Your task to perform on an android device: open app "Viber Messenger" (install if not already installed) and go to login screen Image 0: 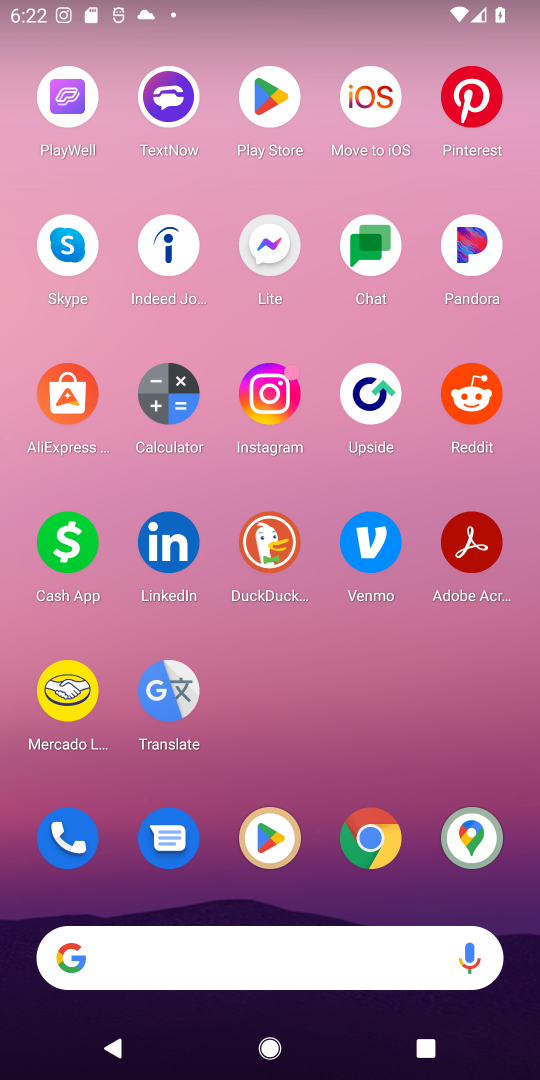
Step 0: click (271, 836)
Your task to perform on an android device: open app "Viber Messenger" (install if not already installed) and go to login screen Image 1: 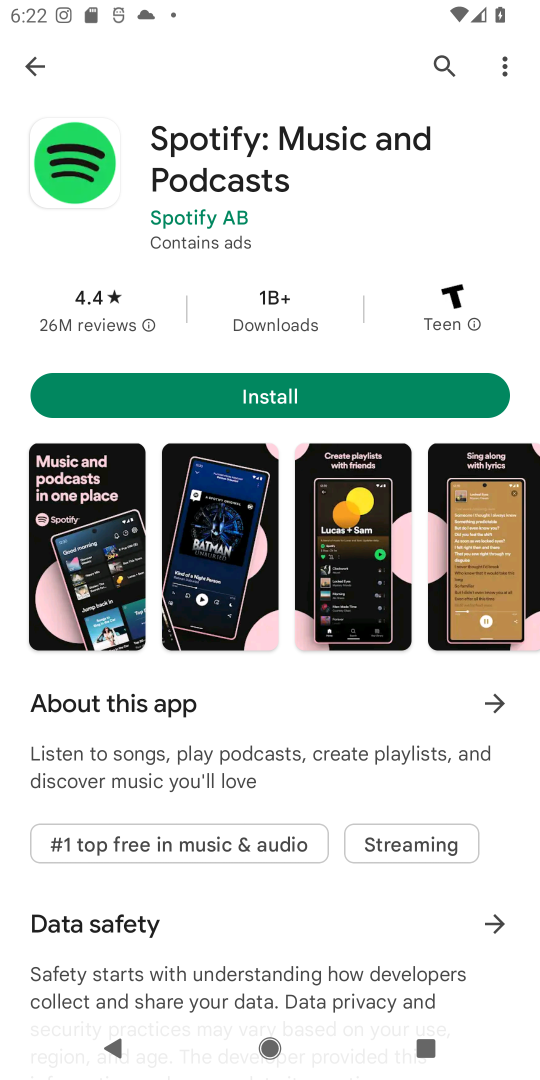
Step 1: click (445, 59)
Your task to perform on an android device: open app "Viber Messenger" (install if not already installed) and go to login screen Image 2: 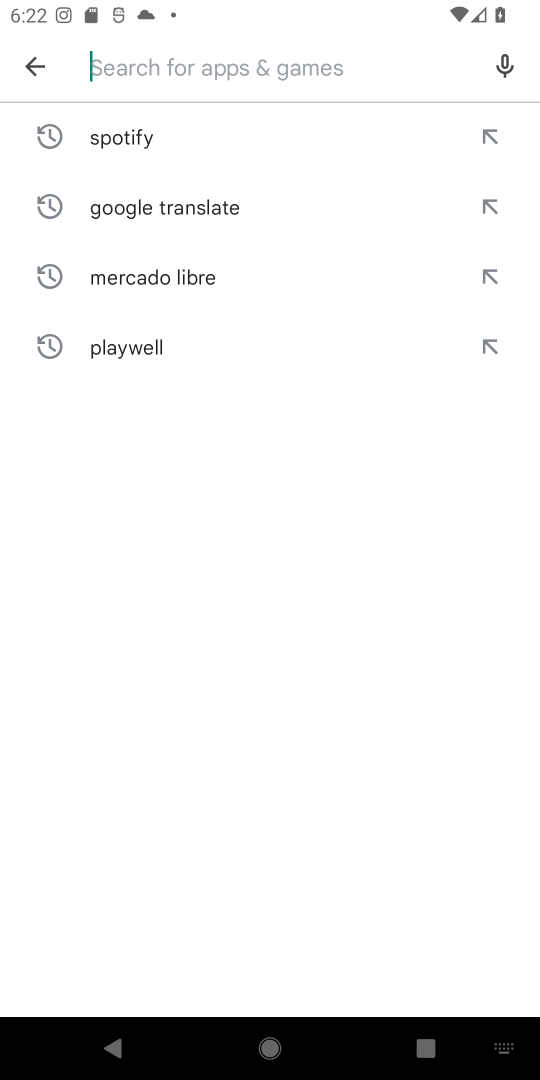
Step 2: type "Viber Messenger"
Your task to perform on an android device: open app "Viber Messenger" (install if not already installed) and go to login screen Image 3: 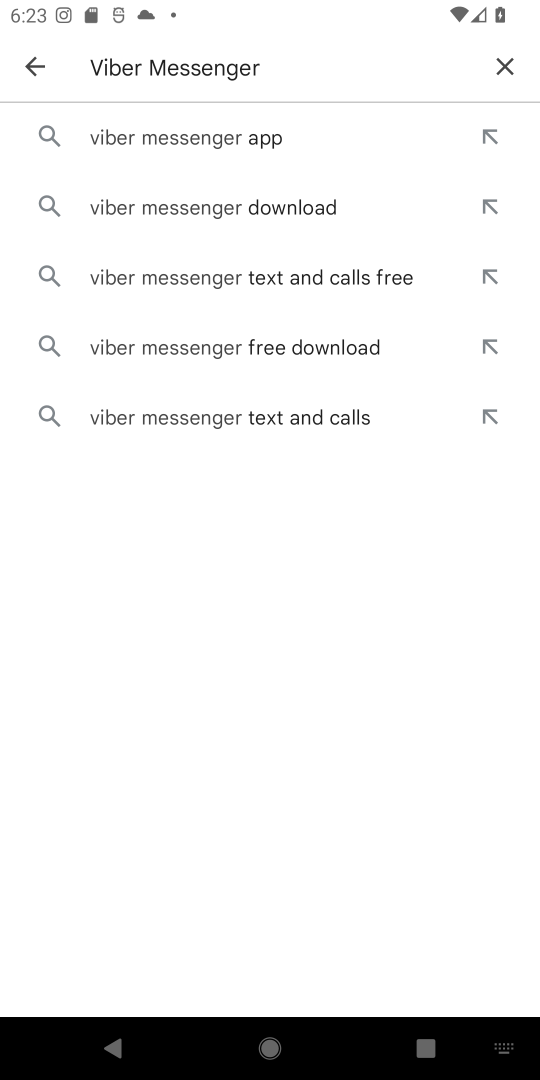
Step 3: click (195, 144)
Your task to perform on an android device: open app "Viber Messenger" (install if not already installed) and go to login screen Image 4: 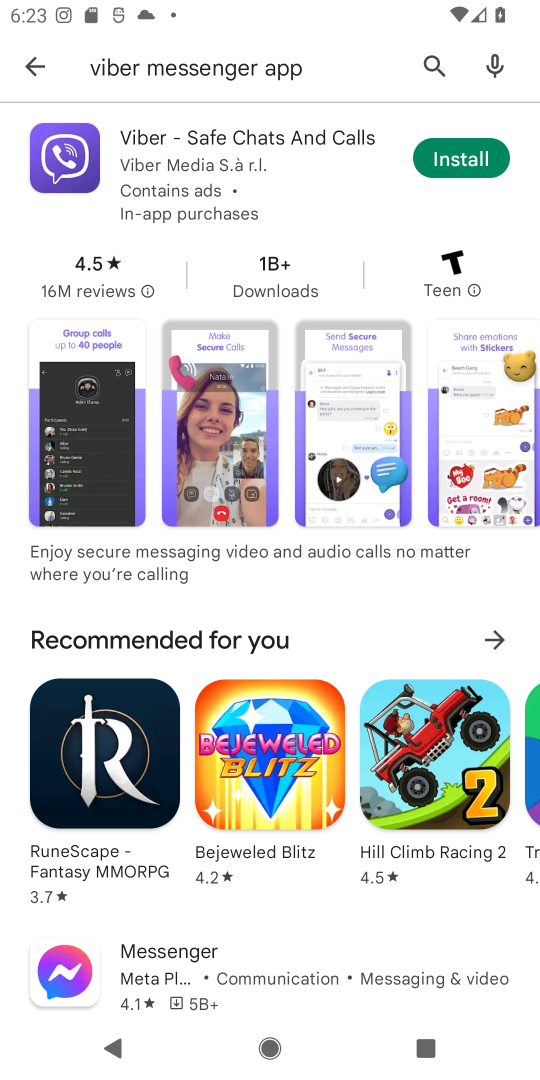
Step 4: click (472, 168)
Your task to perform on an android device: open app "Viber Messenger" (install if not already installed) and go to login screen Image 5: 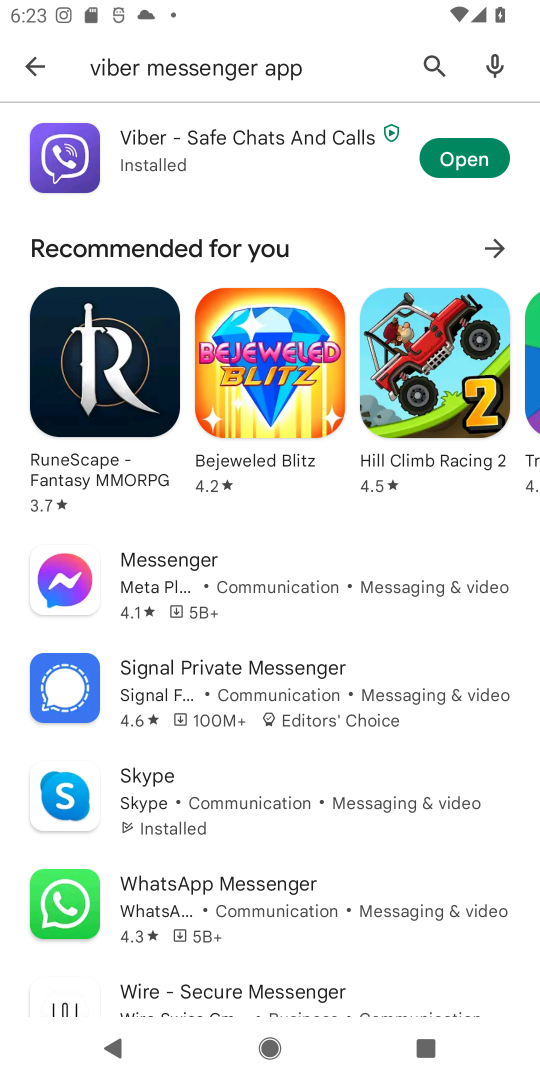
Step 5: click (473, 163)
Your task to perform on an android device: open app "Viber Messenger" (install if not already installed) and go to login screen Image 6: 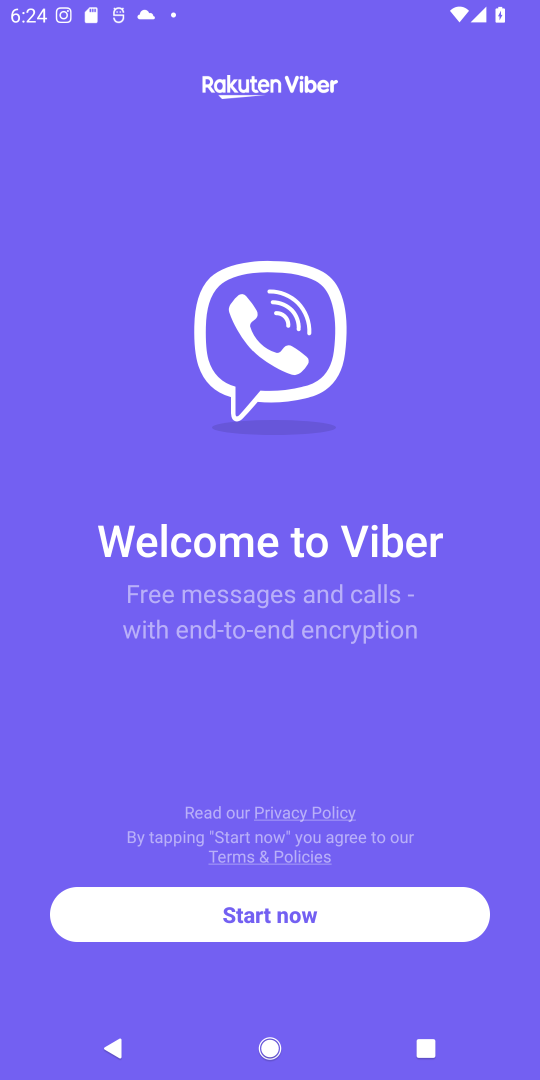
Step 6: click (245, 909)
Your task to perform on an android device: open app "Viber Messenger" (install if not already installed) and go to login screen Image 7: 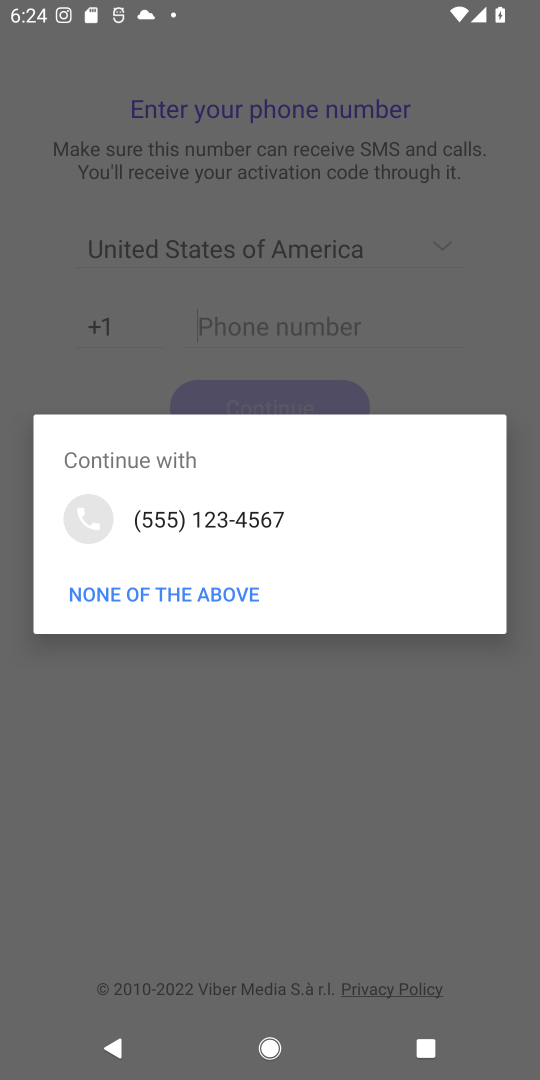
Step 7: task complete